Your task to perform on an android device: Open accessibility settings Image 0: 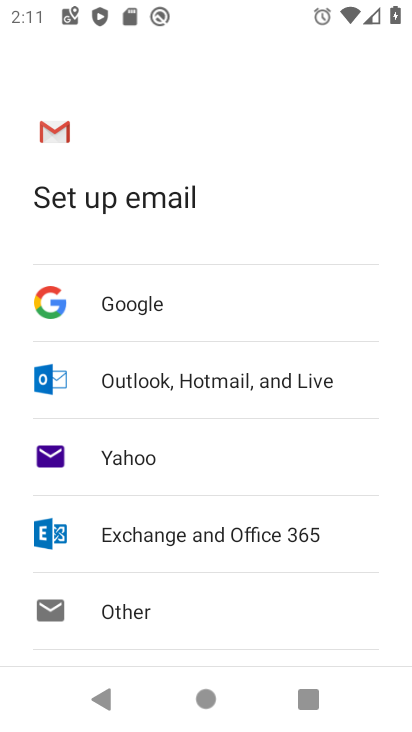
Step 0: press home button
Your task to perform on an android device: Open accessibility settings Image 1: 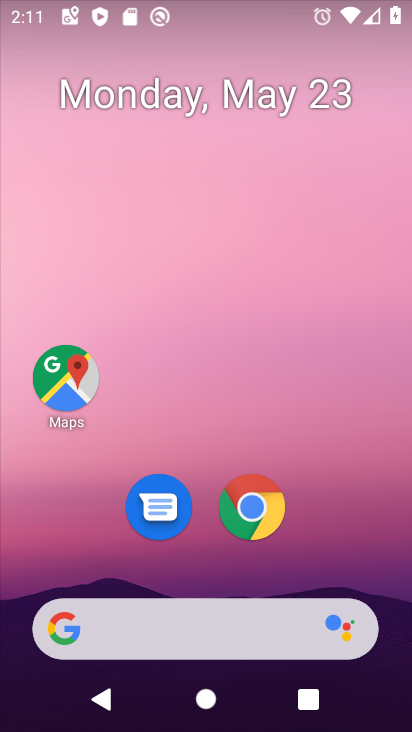
Step 1: drag from (230, 699) to (185, 234)
Your task to perform on an android device: Open accessibility settings Image 2: 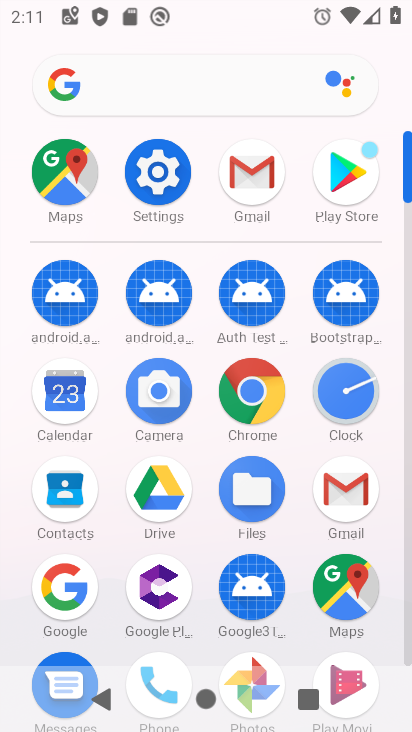
Step 2: click (160, 171)
Your task to perform on an android device: Open accessibility settings Image 3: 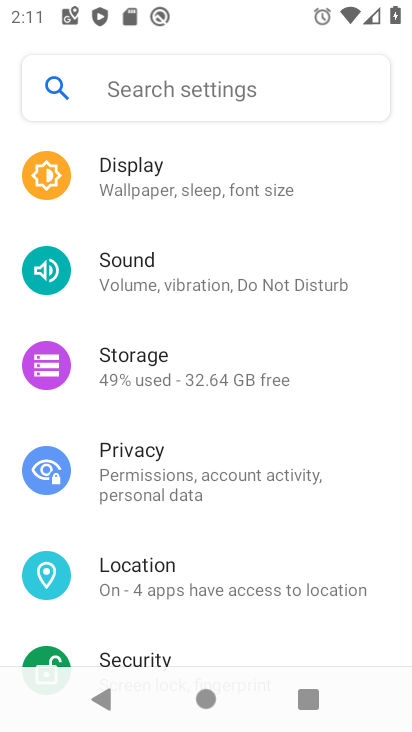
Step 3: drag from (148, 638) to (162, 254)
Your task to perform on an android device: Open accessibility settings Image 4: 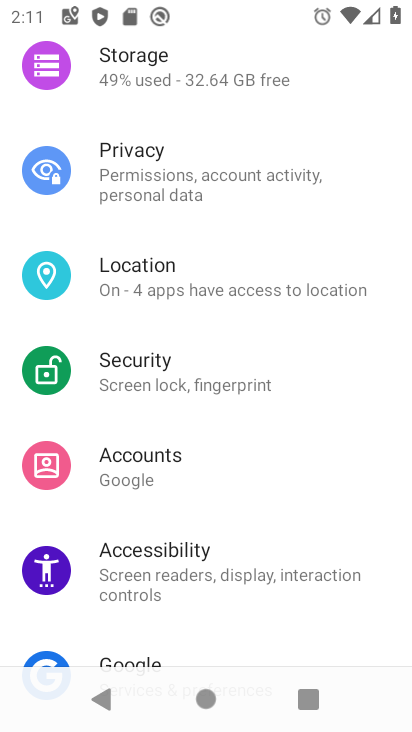
Step 4: click (169, 555)
Your task to perform on an android device: Open accessibility settings Image 5: 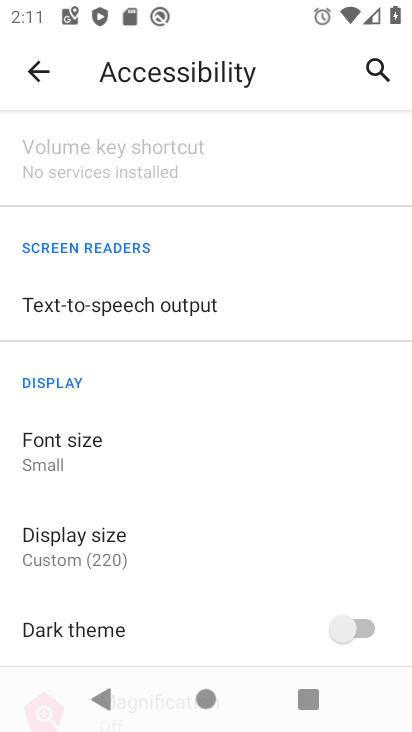
Step 5: task complete